Your task to perform on an android device: turn notification dots on Image 0: 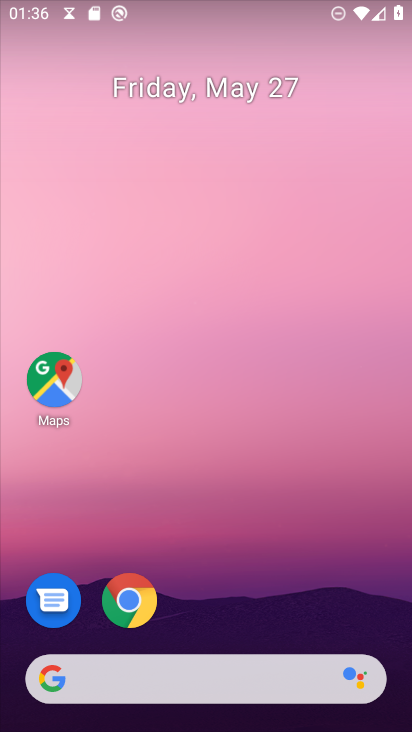
Step 0: drag from (251, 524) to (238, 61)
Your task to perform on an android device: turn notification dots on Image 1: 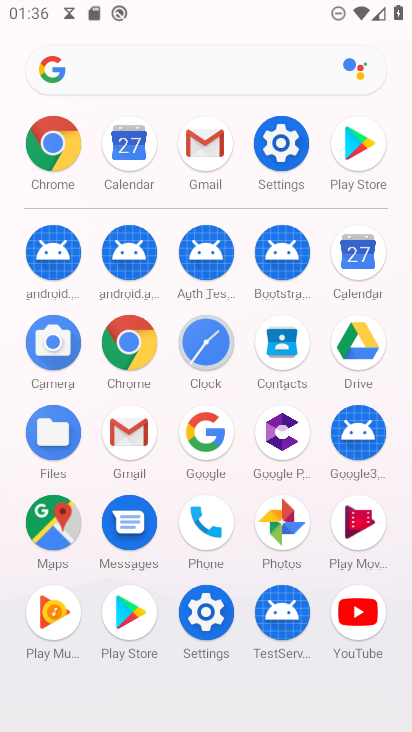
Step 1: click (273, 140)
Your task to perform on an android device: turn notification dots on Image 2: 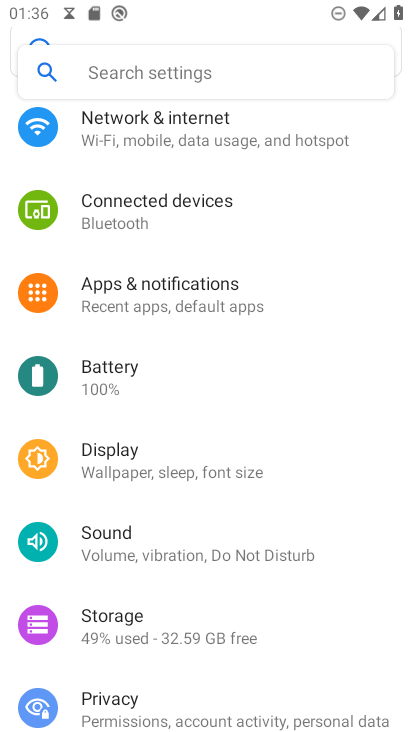
Step 2: click (146, 281)
Your task to perform on an android device: turn notification dots on Image 3: 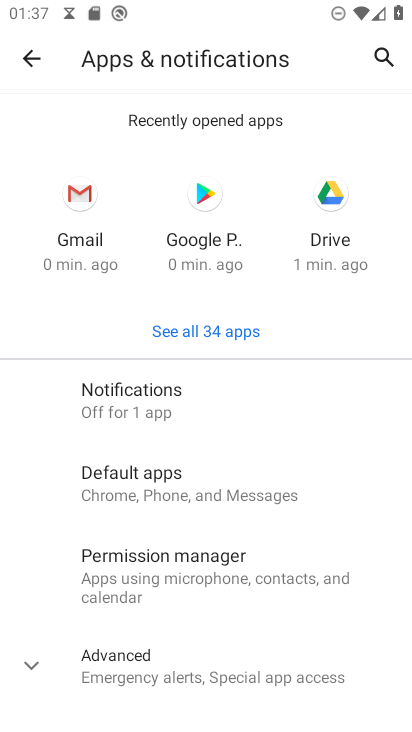
Step 3: click (101, 400)
Your task to perform on an android device: turn notification dots on Image 4: 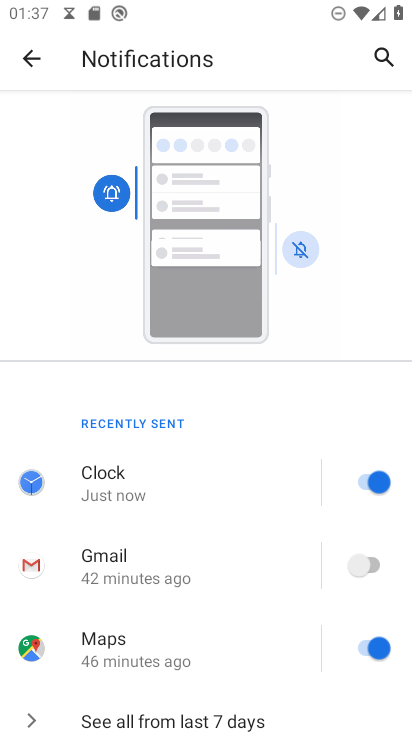
Step 4: drag from (224, 606) to (193, 165)
Your task to perform on an android device: turn notification dots on Image 5: 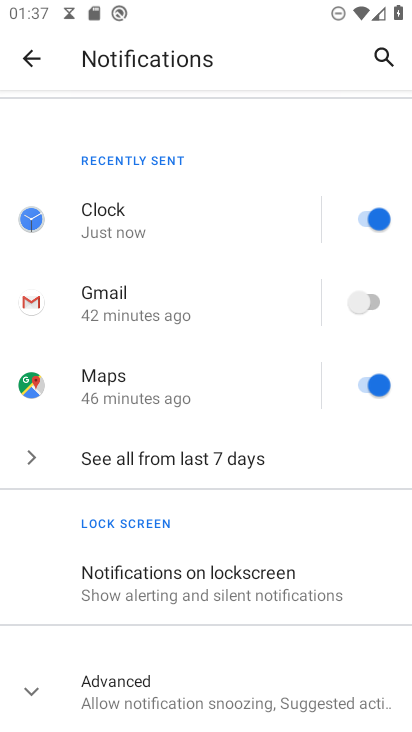
Step 5: click (168, 582)
Your task to perform on an android device: turn notification dots on Image 6: 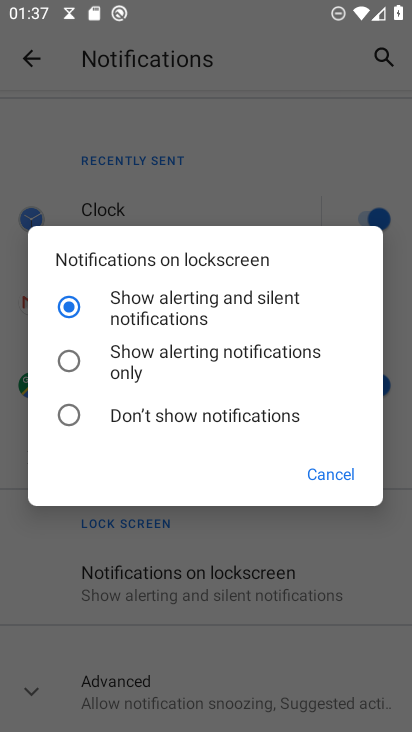
Step 6: click (330, 478)
Your task to perform on an android device: turn notification dots on Image 7: 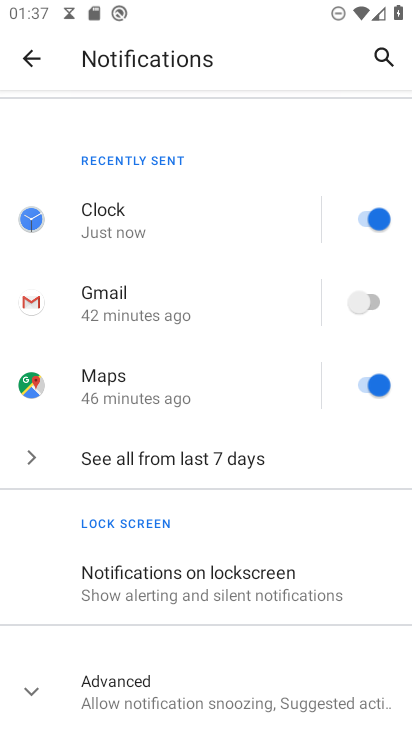
Step 7: click (267, 694)
Your task to perform on an android device: turn notification dots on Image 8: 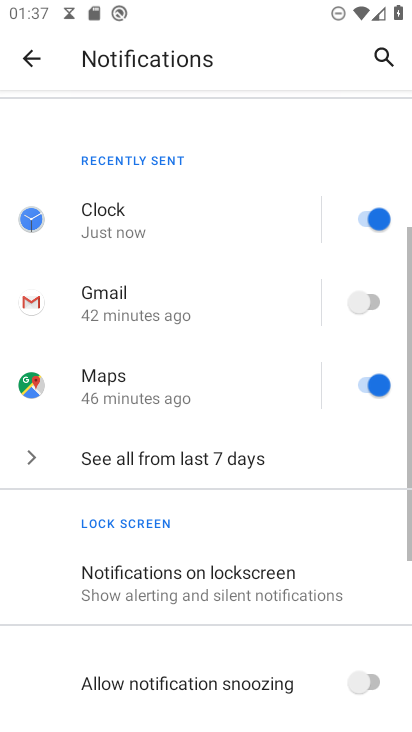
Step 8: task complete